Your task to perform on an android device: Open Youtube and go to the subscriptions tab Image 0: 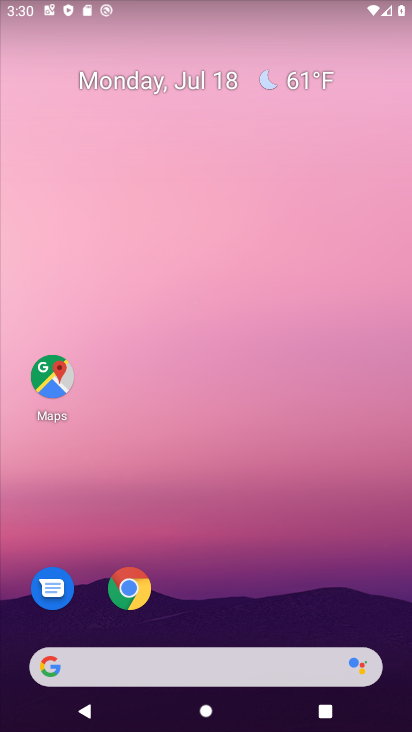
Step 0: drag from (198, 584) to (168, 92)
Your task to perform on an android device: Open Youtube and go to the subscriptions tab Image 1: 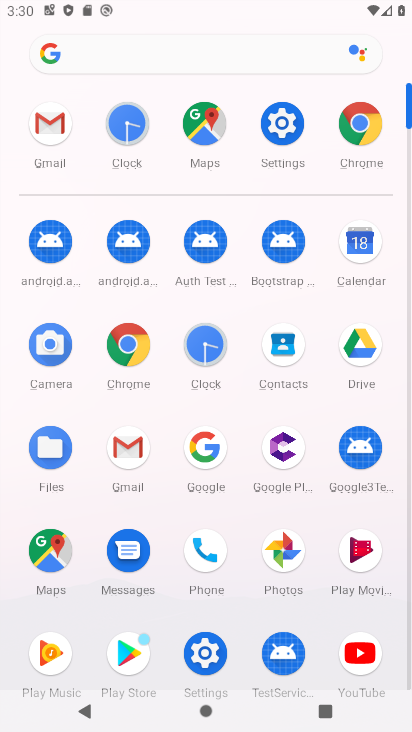
Step 1: click (377, 682)
Your task to perform on an android device: Open Youtube and go to the subscriptions tab Image 2: 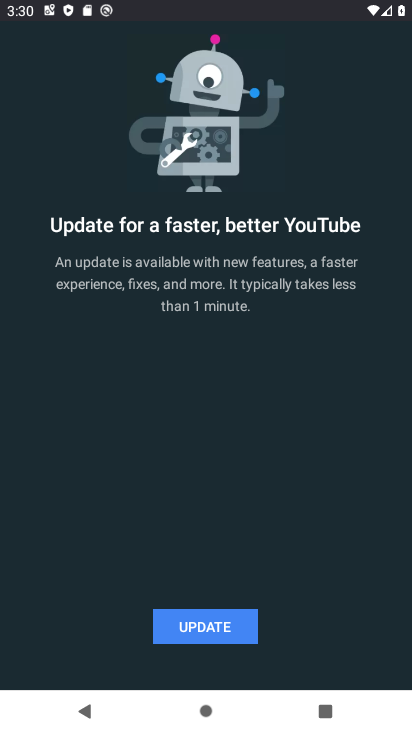
Step 2: click (216, 630)
Your task to perform on an android device: Open Youtube and go to the subscriptions tab Image 3: 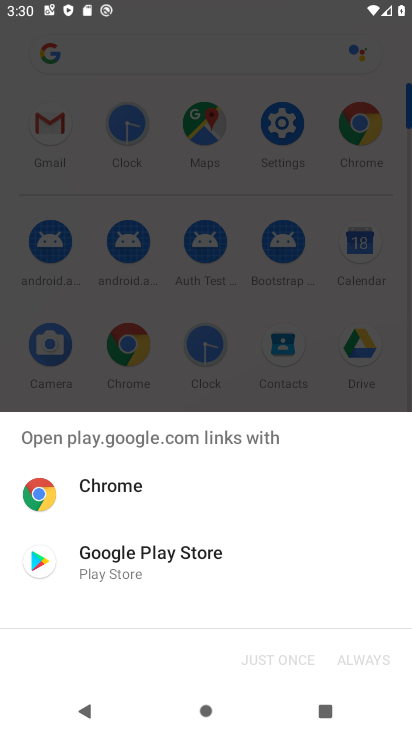
Step 3: click (231, 591)
Your task to perform on an android device: Open Youtube and go to the subscriptions tab Image 4: 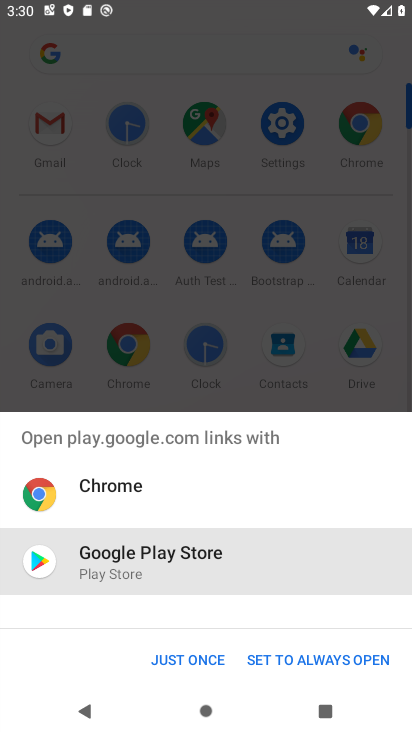
Step 4: click (192, 657)
Your task to perform on an android device: Open Youtube and go to the subscriptions tab Image 5: 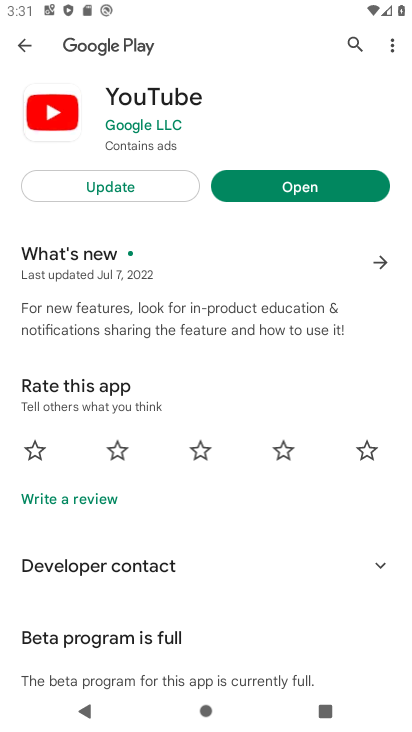
Step 5: click (135, 198)
Your task to perform on an android device: Open Youtube and go to the subscriptions tab Image 6: 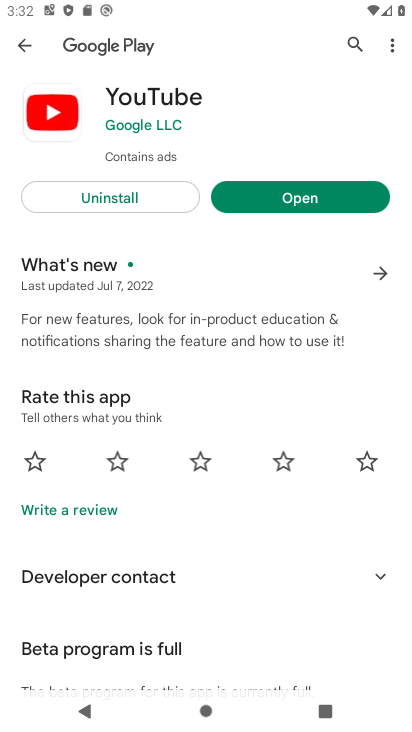
Step 6: click (250, 203)
Your task to perform on an android device: Open Youtube and go to the subscriptions tab Image 7: 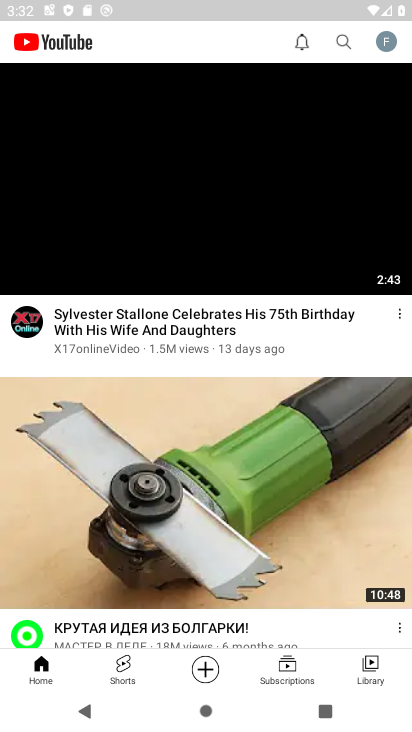
Step 7: click (274, 661)
Your task to perform on an android device: Open Youtube and go to the subscriptions tab Image 8: 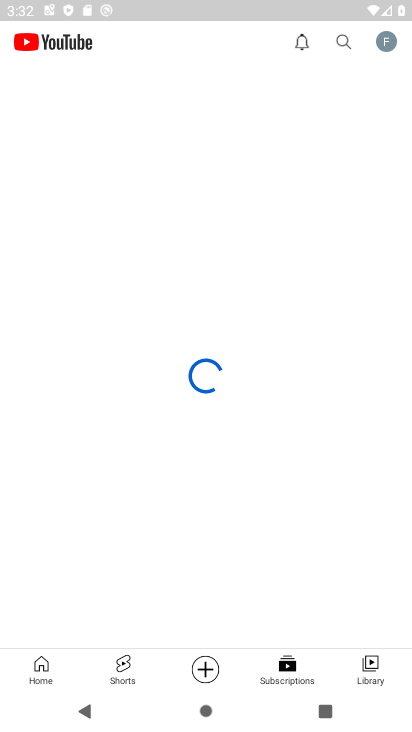
Step 8: task complete